Your task to perform on an android device: turn on showing notifications on the lock screen Image 0: 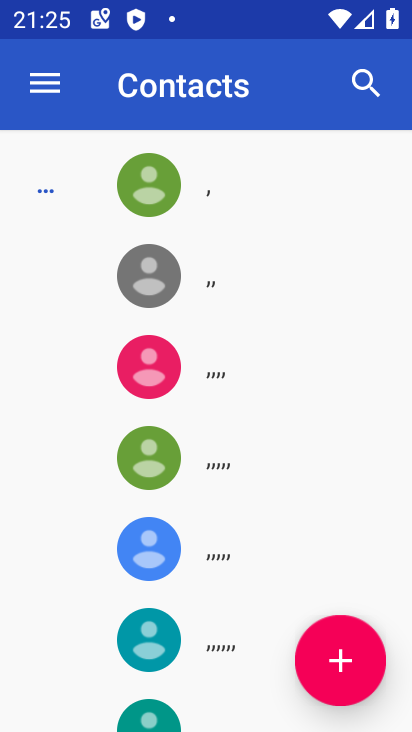
Step 0: press back button
Your task to perform on an android device: turn on showing notifications on the lock screen Image 1: 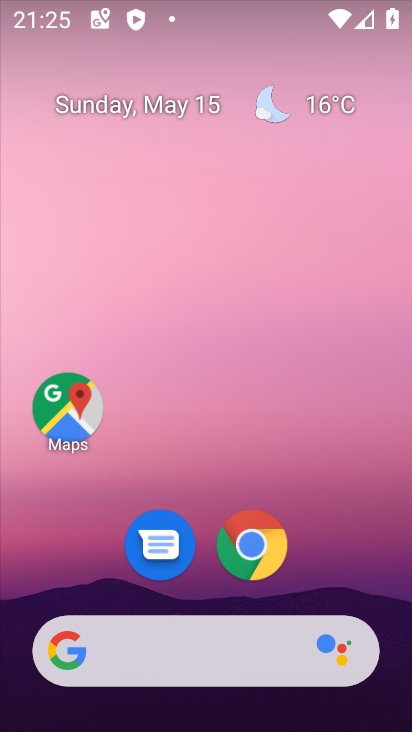
Step 1: drag from (320, 581) to (218, 109)
Your task to perform on an android device: turn on showing notifications on the lock screen Image 2: 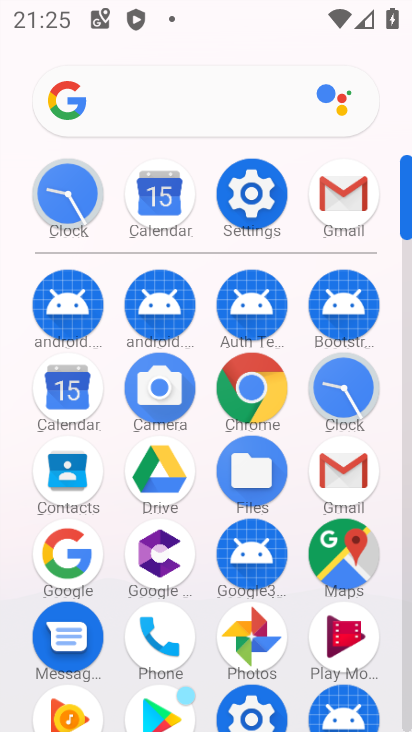
Step 2: click (250, 193)
Your task to perform on an android device: turn on showing notifications on the lock screen Image 3: 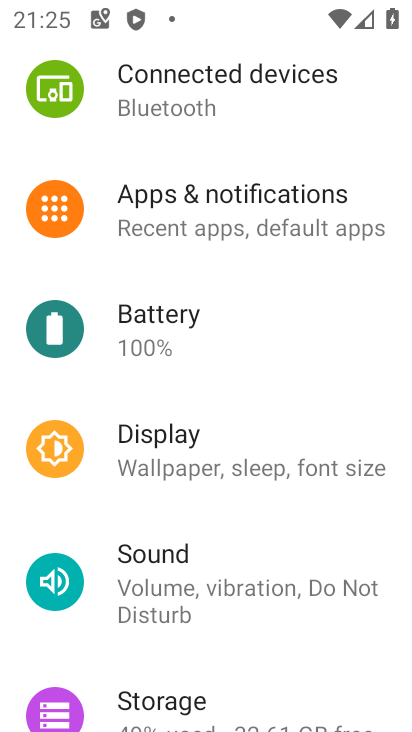
Step 3: click (268, 193)
Your task to perform on an android device: turn on showing notifications on the lock screen Image 4: 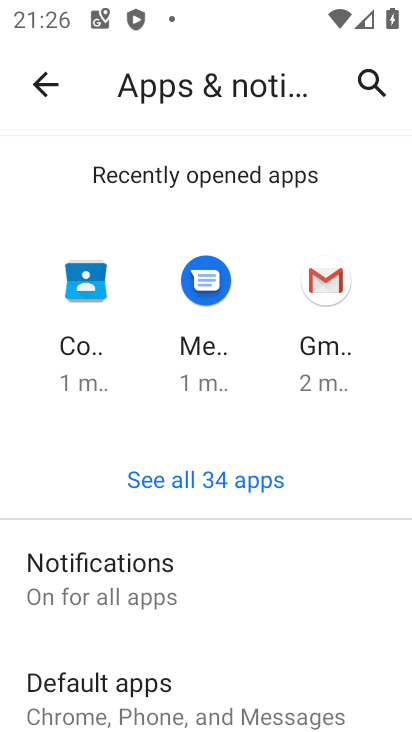
Step 4: click (121, 554)
Your task to perform on an android device: turn on showing notifications on the lock screen Image 5: 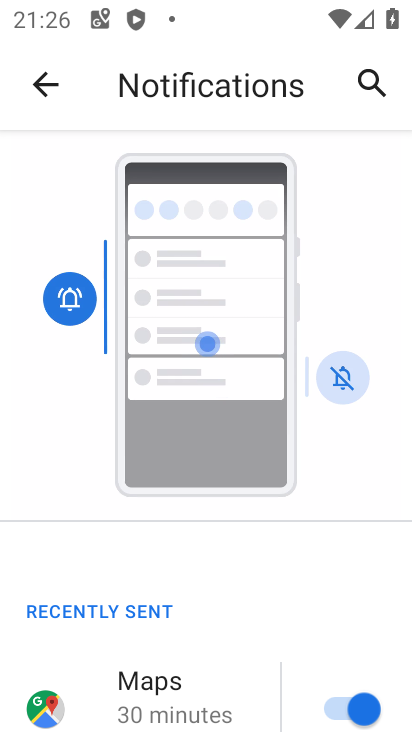
Step 5: drag from (223, 580) to (307, 364)
Your task to perform on an android device: turn on showing notifications on the lock screen Image 6: 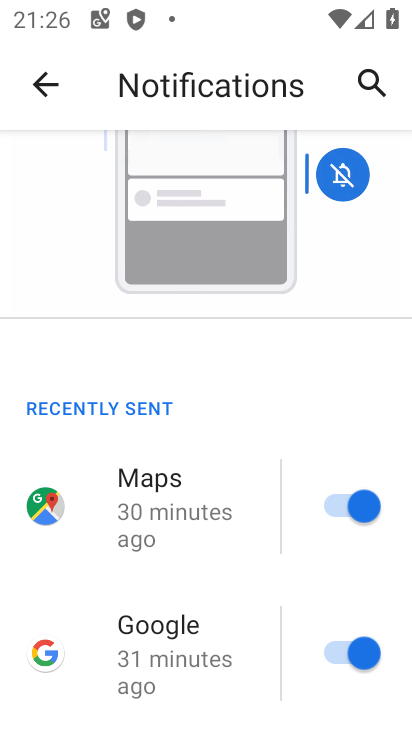
Step 6: drag from (228, 686) to (264, 514)
Your task to perform on an android device: turn on showing notifications on the lock screen Image 7: 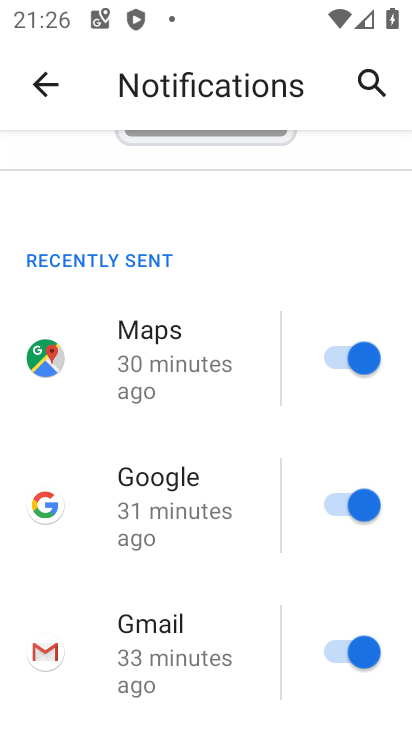
Step 7: drag from (209, 605) to (216, 442)
Your task to perform on an android device: turn on showing notifications on the lock screen Image 8: 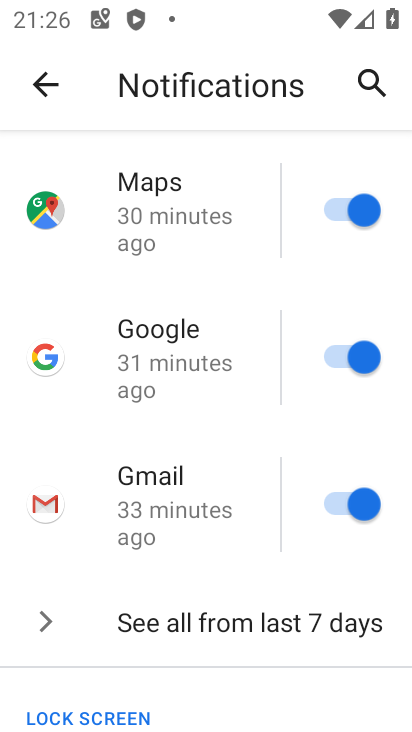
Step 8: drag from (203, 579) to (248, 449)
Your task to perform on an android device: turn on showing notifications on the lock screen Image 9: 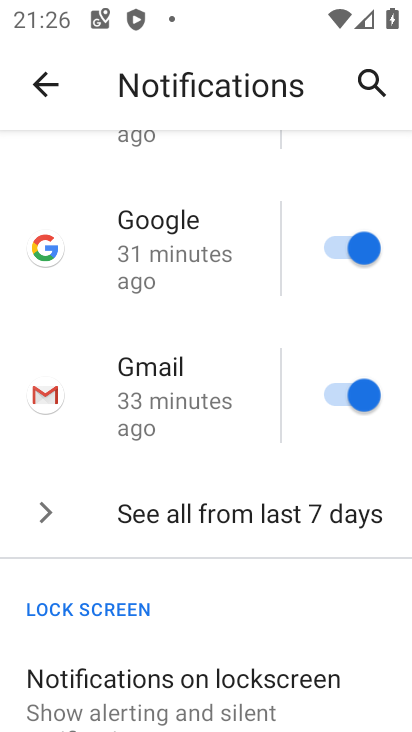
Step 9: drag from (190, 649) to (282, 480)
Your task to perform on an android device: turn on showing notifications on the lock screen Image 10: 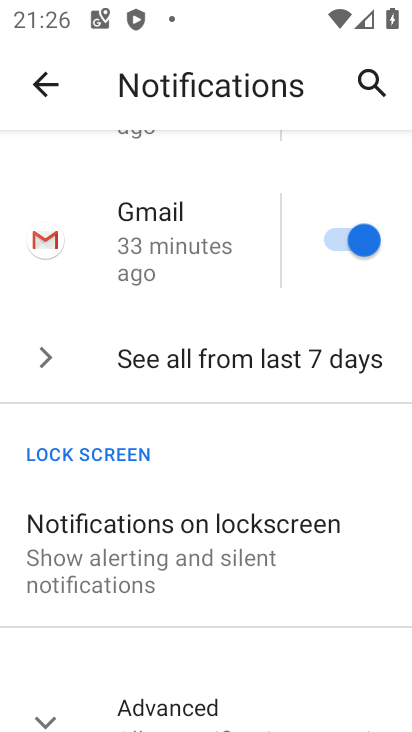
Step 10: click (248, 533)
Your task to perform on an android device: turn on showing notifications on the lock screen Image 11: 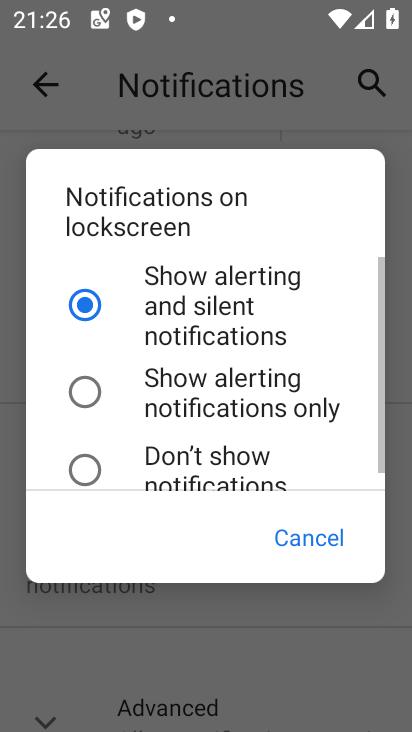
Step 11: click (90, 294)
Your task to perform on an android device: turn on showing notifications on the lock screen Image 12: 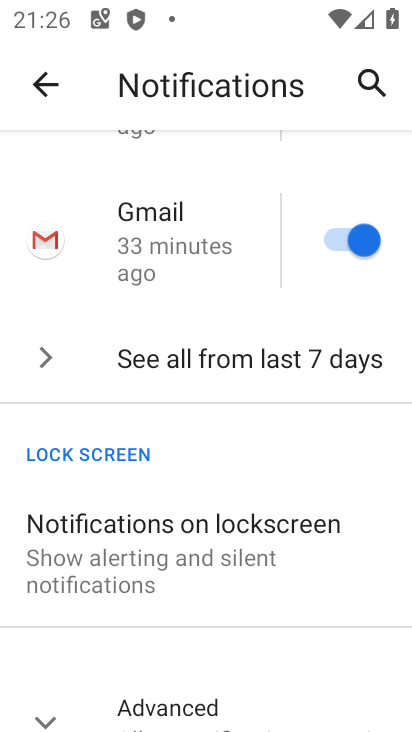
Step 12: task complete